Your task to perform on an android device: open device folders in google photos Image 0: 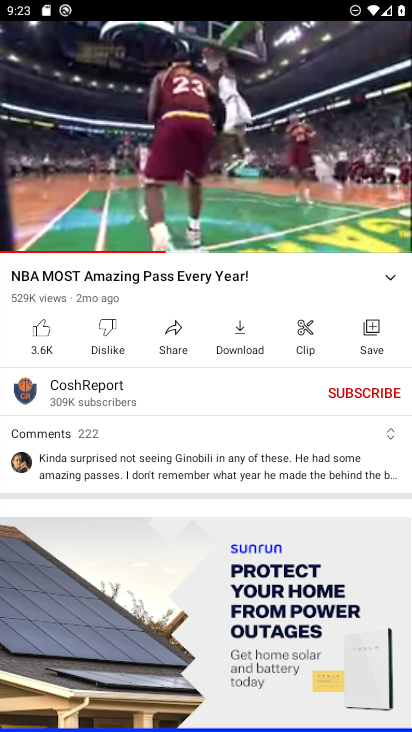
Step 0: press home button
Your task to perform on an android device: open device folders in google photos Image 1: 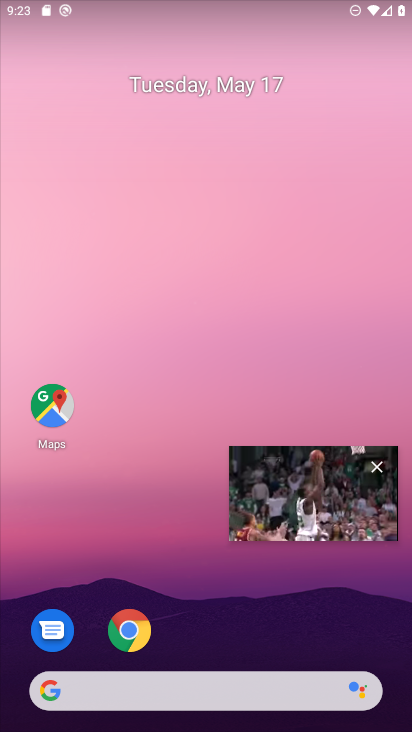
Step 1: click (378, 466)
Your task to perform on an android device: open device folders in google photos Image 2: 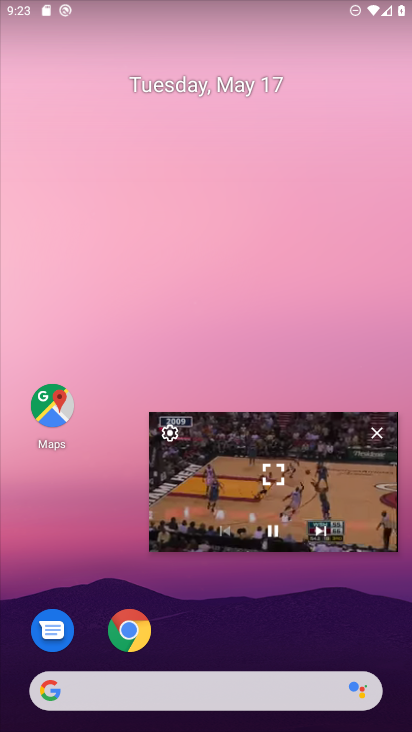
Step 2: click (380, 432)
Your task to perform on an android device: open device folders in google photos Image 3: 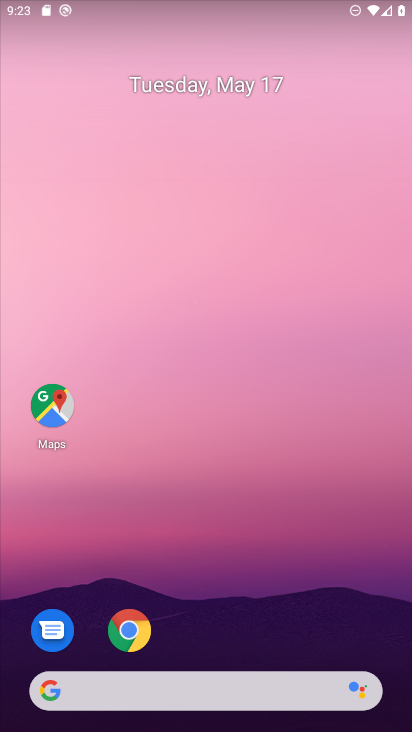
Step 3: drag from (314, 619) to (318, 246)
Your task to perform on an android device: open device folders in google photos Image 4: 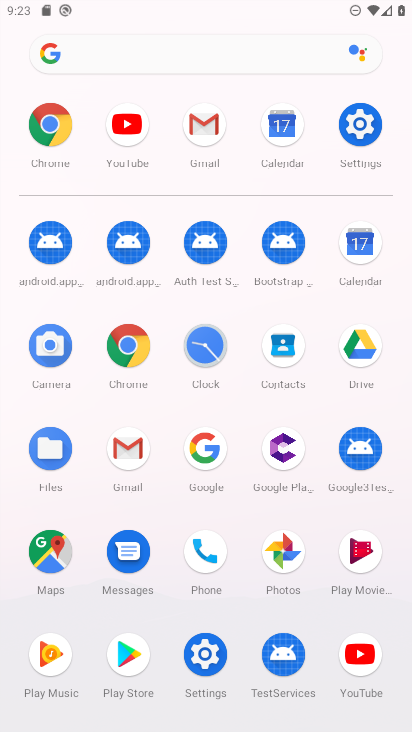
Step 4: click (271, 549)
Your task to perform on an android device: open device folders in google photos Image 5: 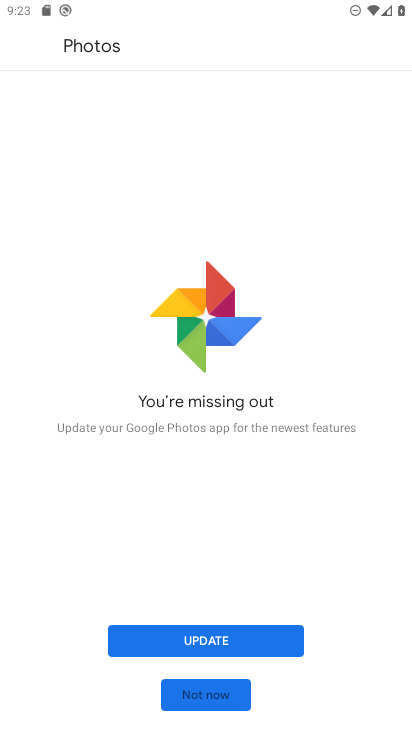
Step 5: click (242, 640)
Your task to perform on an android device: open device folders in google photos Image 6: 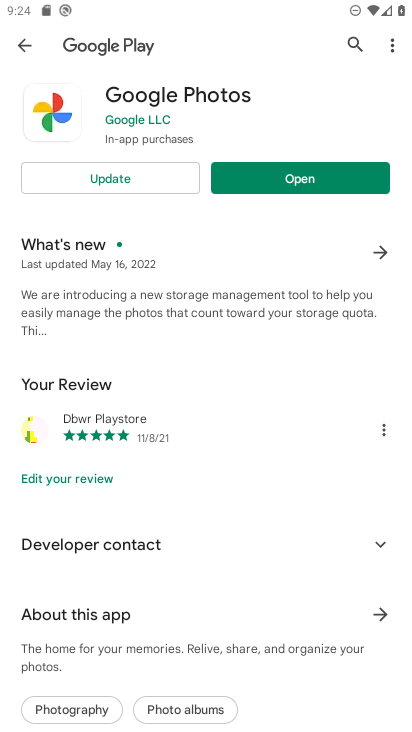
Step 6: click (128, 180)
Your task to perform on an android device: open device folders in google photos Image 7: 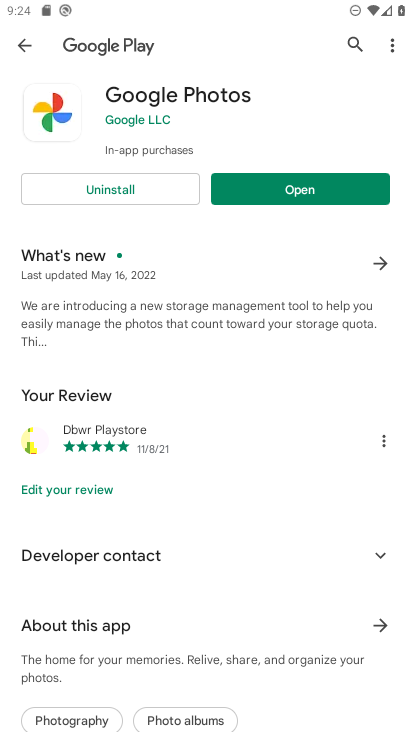
Step 7: click (308, 192)
Your task to perform on an android device: open device folders in google photos Image 8: 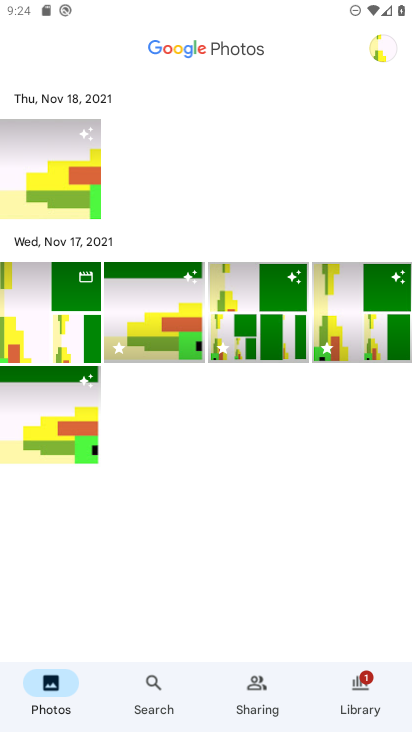
Step 8: click (383, 53)
Your task to perform on an android device: open device folders in google photos Image 9: 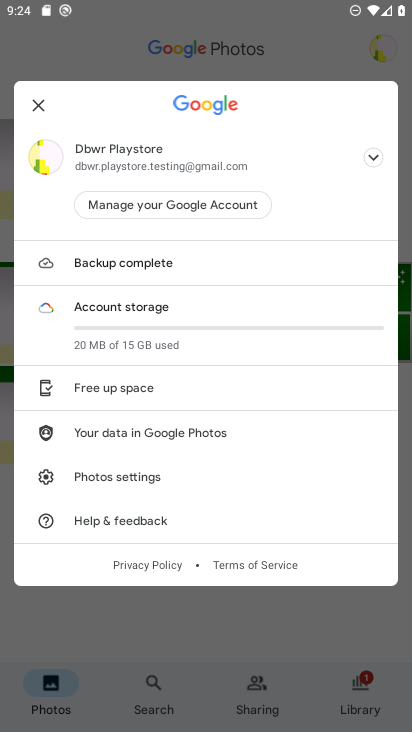
Step 9: task complete